Your task to perform on an android device: check battery use Image 0: 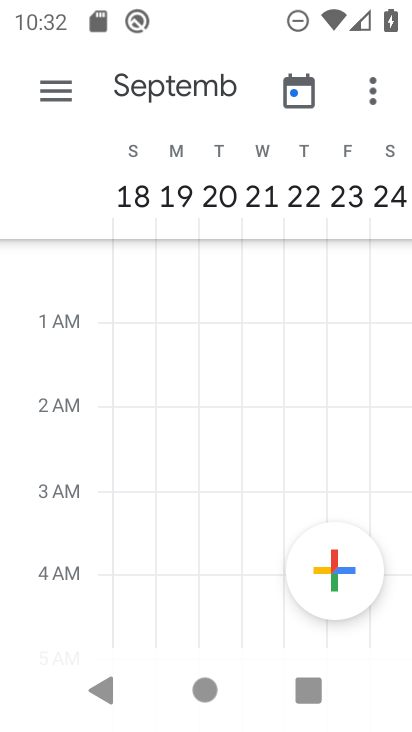
Step 0: press home button
Your task to perform on an android device: check battery use Image 1: 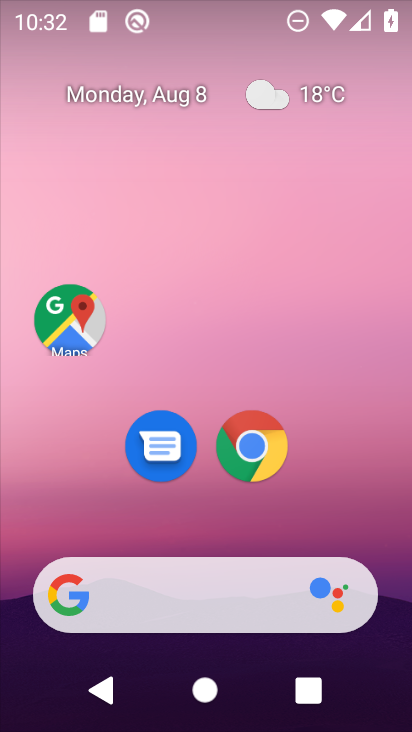
Step 1: drag from (391, 631) to (388, 230)
Your task to perform on an android device: check battery use Image 2: 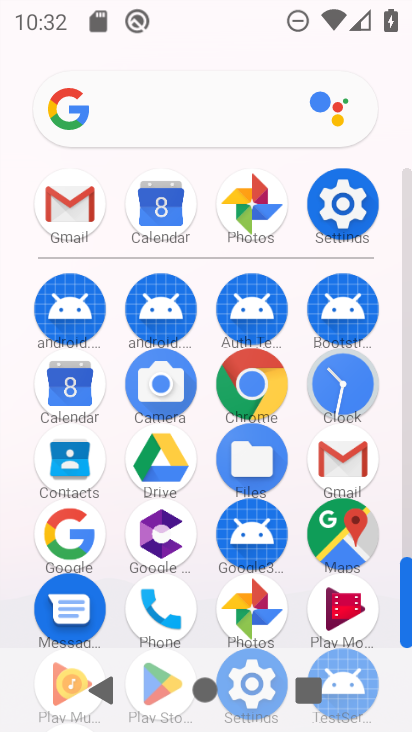
Step 2: click (405, 542)
Your task to perform on an android device: check battery use Image 3: 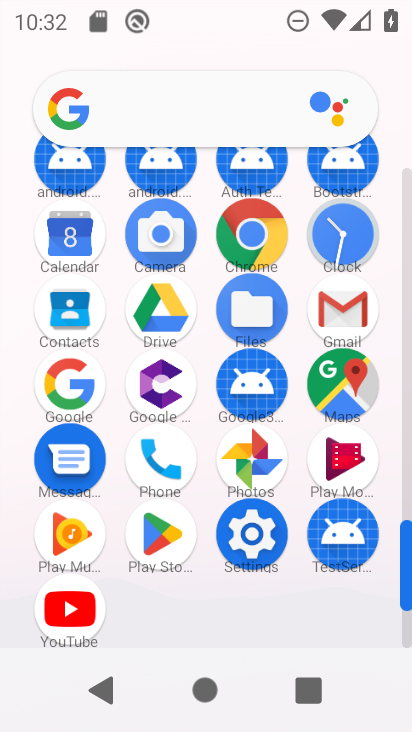
Step 3: click (257, 537)
Your task to perform on an android device: check battery use Image 4: 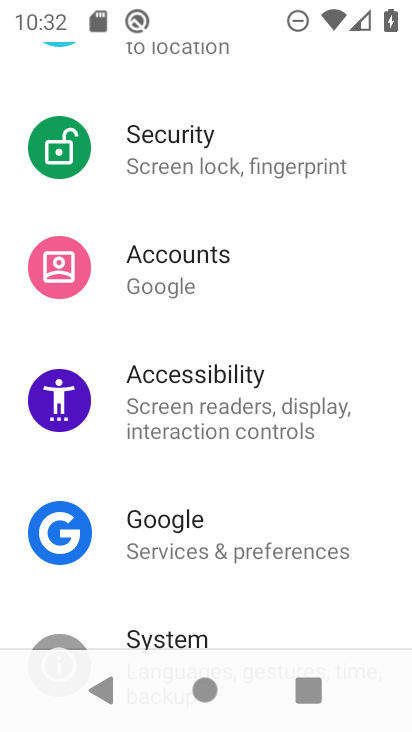
Step 4: drag from (332, 227) to (350, 453)
Your task to perform on an android device: check battery use Image 5: 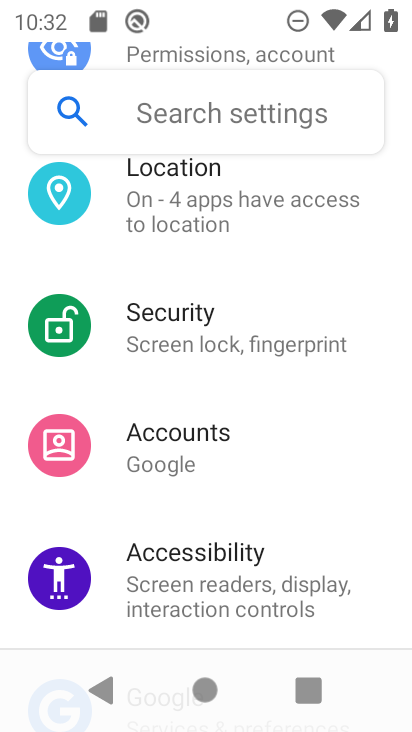
Step 5: drag from (358, 252) to (351, 543)
Your task to perform on an android device: check battery use Image 6: 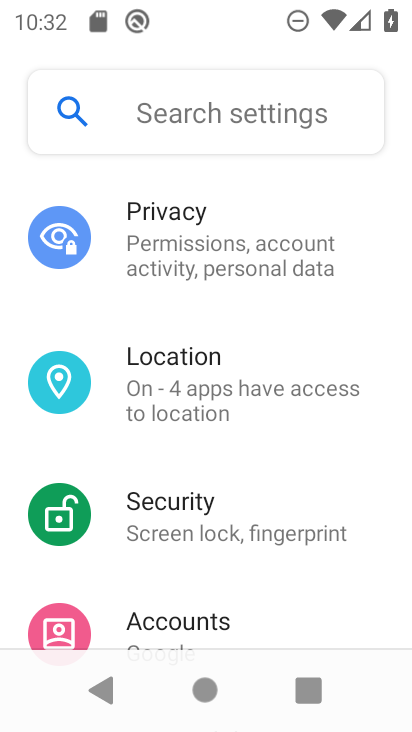
Step 6: drag from (366, 260) to (364, 474)
Your task to perform on an android device: check battery use Image 7: 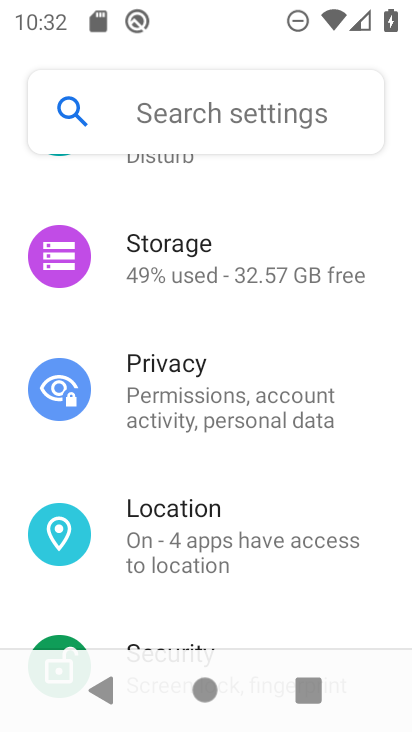
Step 7: drag from (361, 232) to (354, 494)
Your task to perform on an android device: check battery use Image 8: 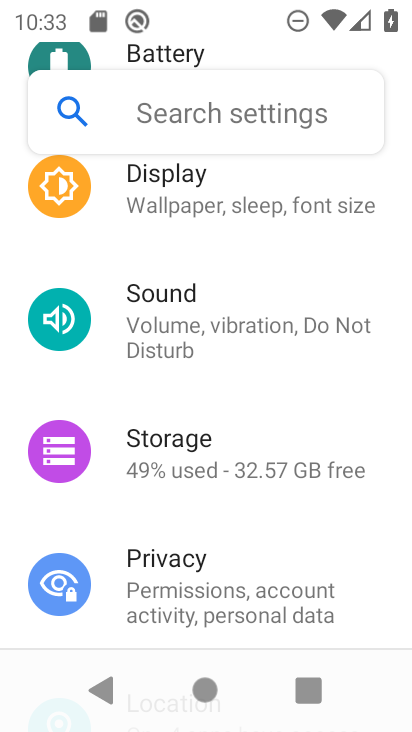
Step 8: drag from (358, 271) to (355, 590)
Your task to perform on an android device: check battery use Image 9: 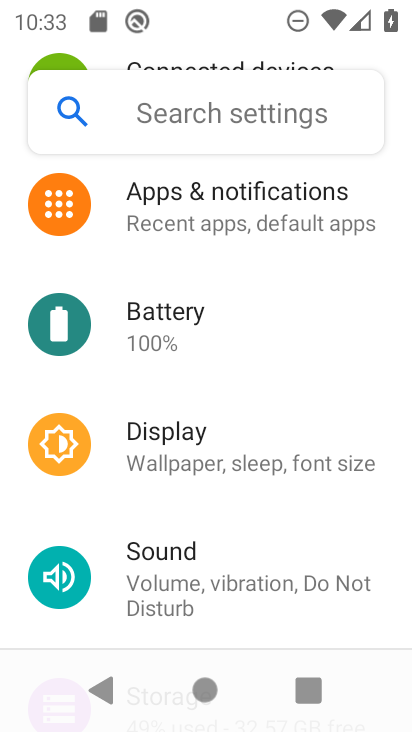
Step 9: click (155, 307)
Your task to perform on an android device: check battery use Image 10: 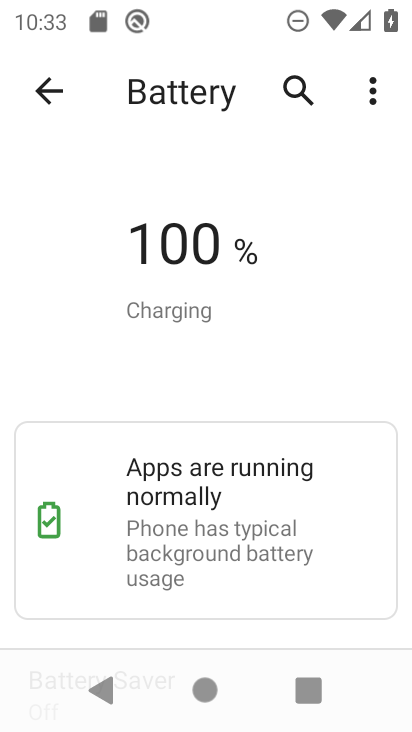
Step 10: drag from (267, 554) to (256, 184)
Your task to perform on an android device: check battery use Image 11: 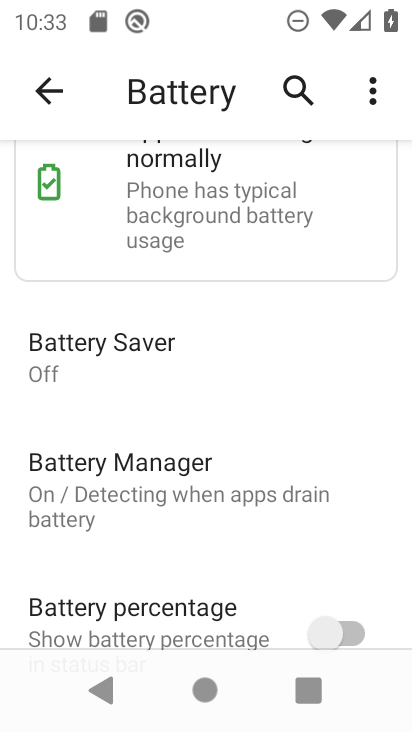
Step 11: click (372, 101)
Your task to perform on an android device: check battery use Image 12: 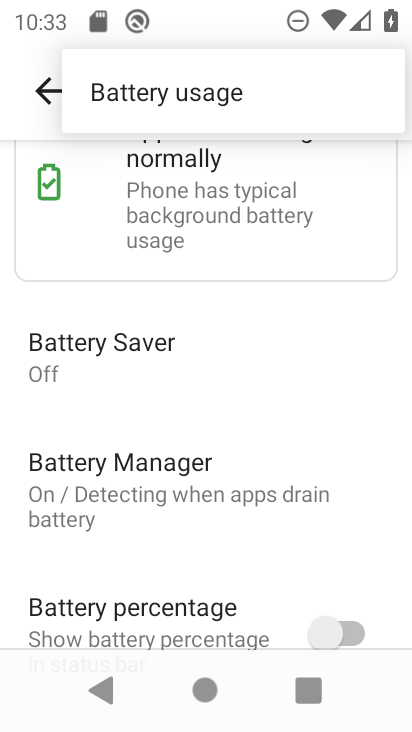
Step 12: click (178, 93)
Your task to perform on an android device: check battery use Image 13: 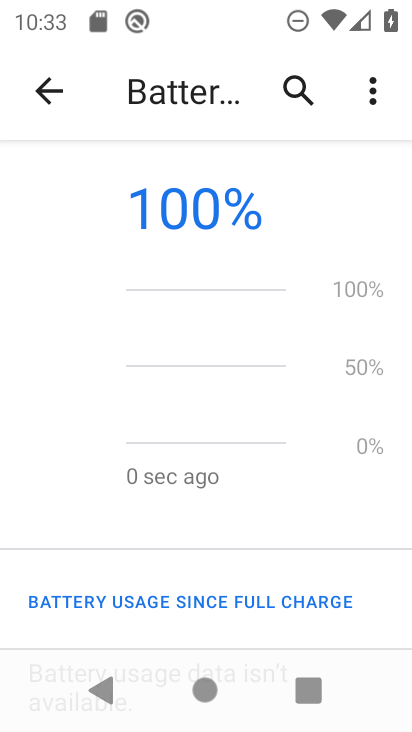
Step 13: task complete